Your task to perform on an android device: open sync settings in chrome Image 0: 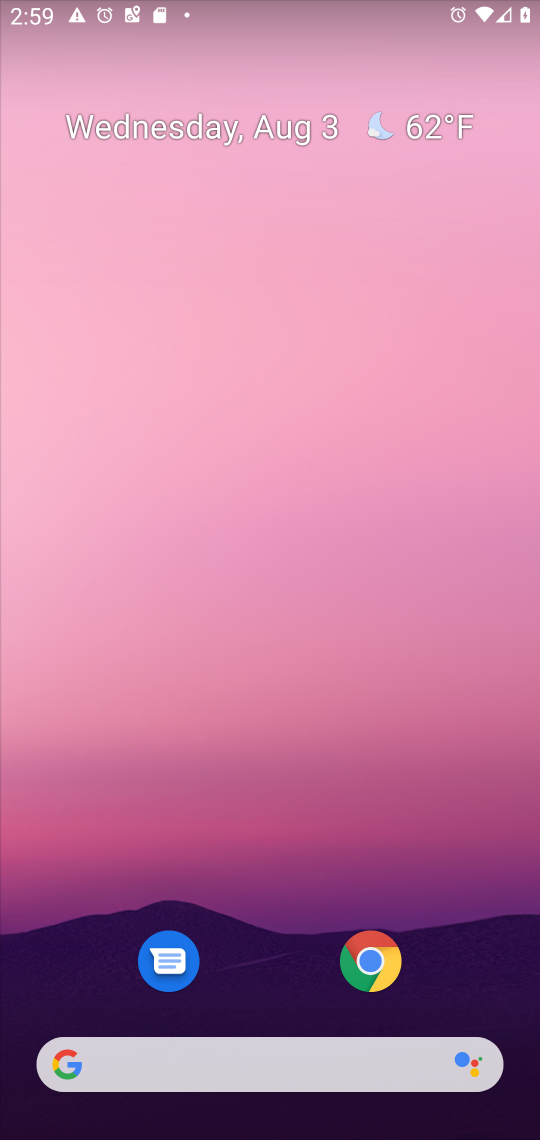
Step 0: click (370, 966)
Your task to perform on an android device: open sync settings in chrome Image 1: 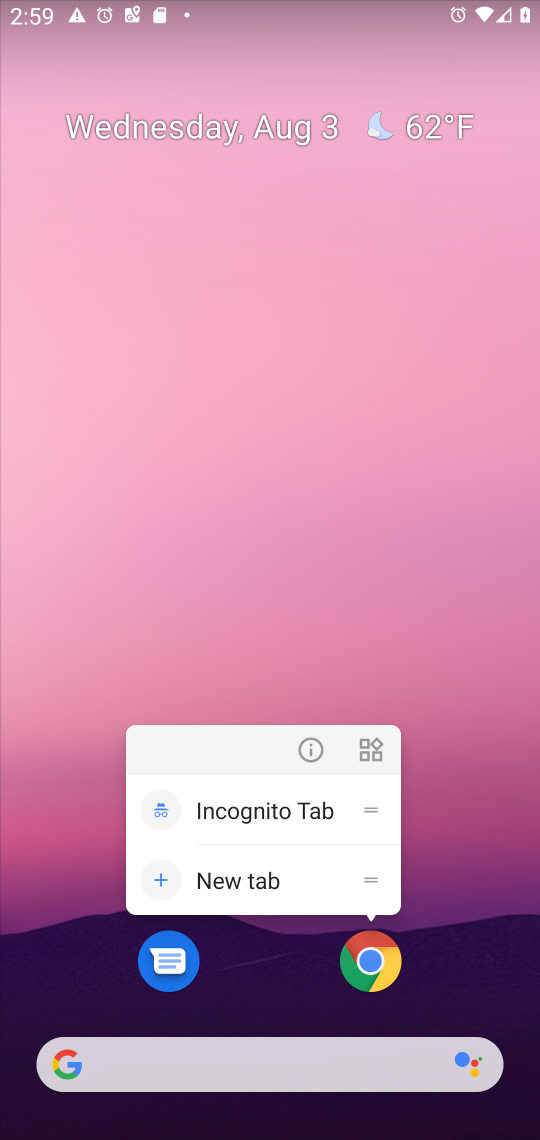
Step 1: click (370, 966)
Your task to perform on an android device: open sync settings in chrome Image 2: 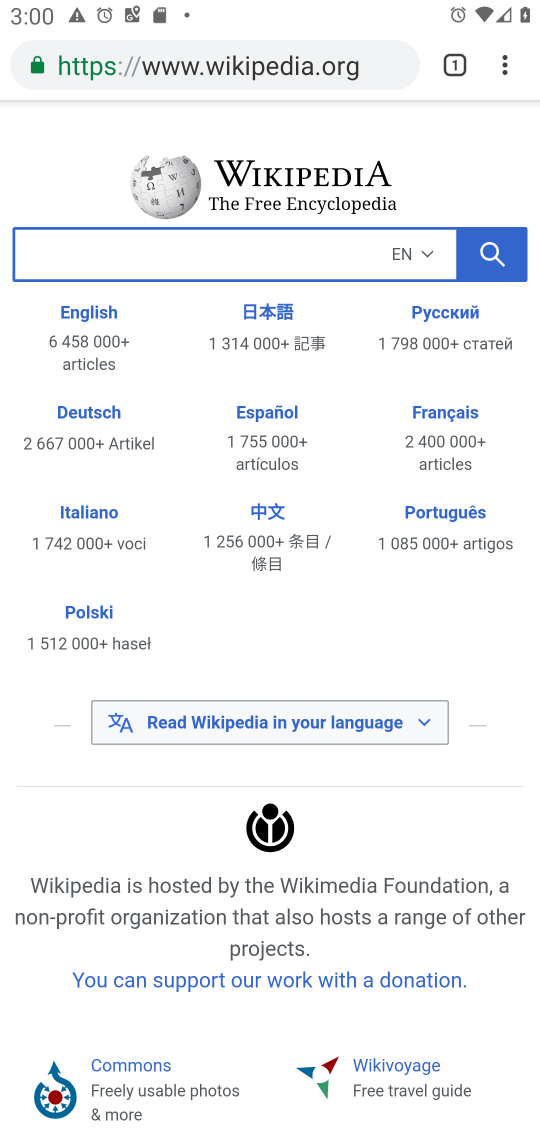
Step 2: click (501, 58)
Your task to perform on an android device: open sync settings in chrome Image 3: 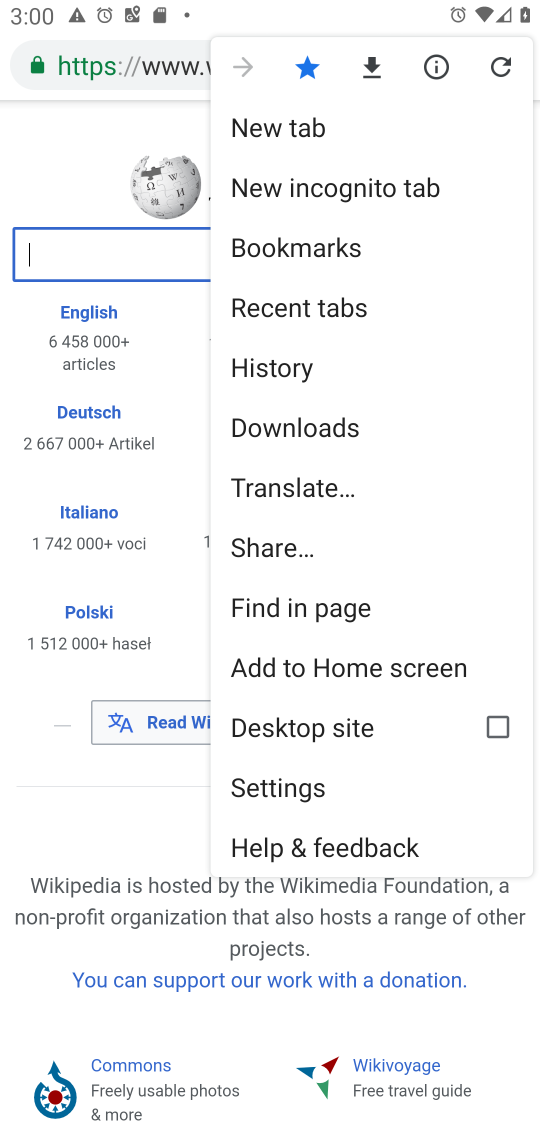
Step 3: click (286, 794)
Your task to perform on an android device: open sync settings in chrome Image 4: 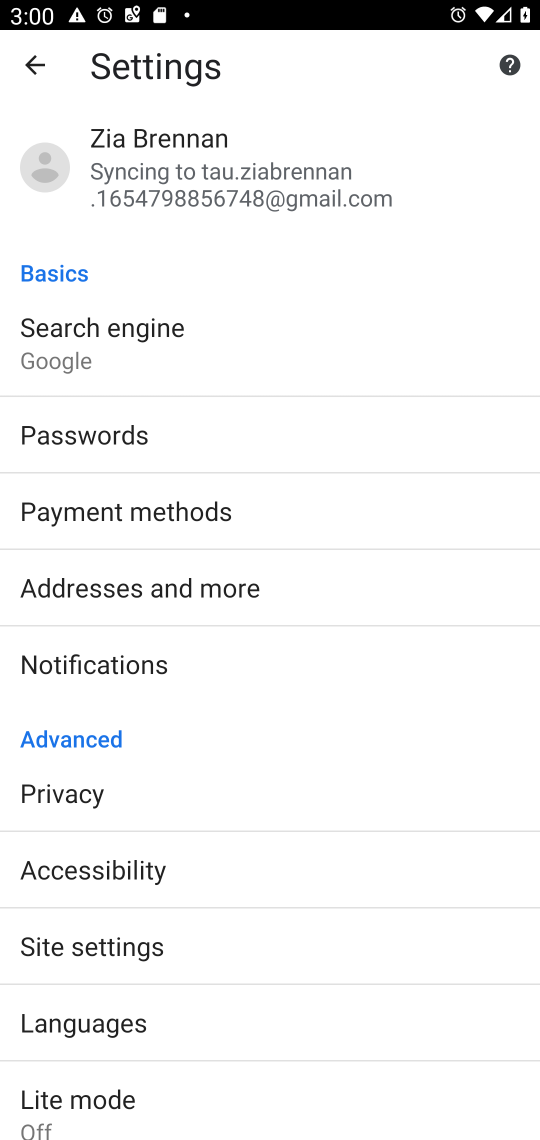
Step 4: click (185, 181)
Your task to perform on an android device: open sync settings in chrome Image 5: 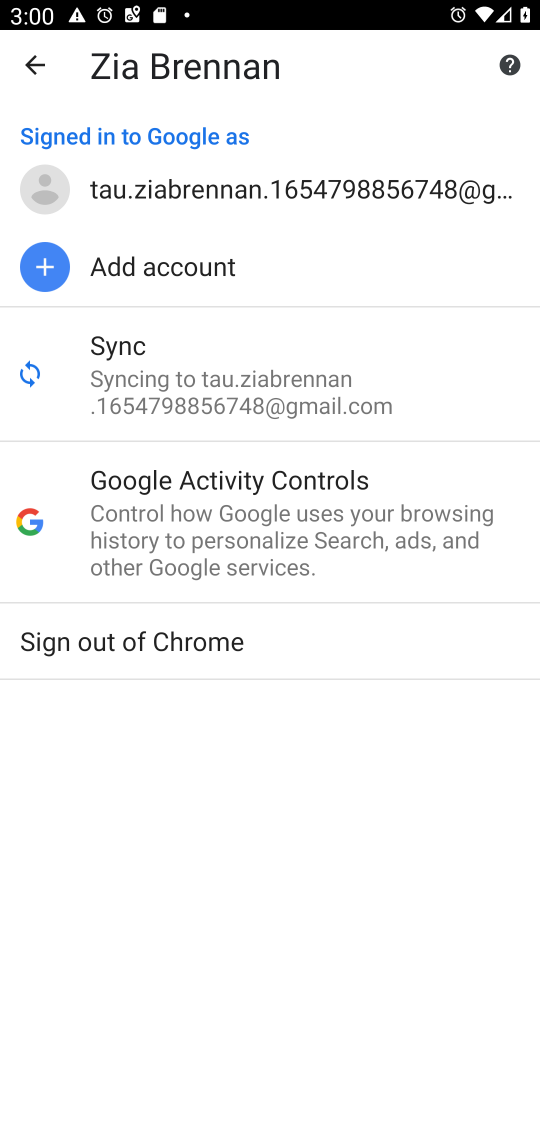
Step 5: click (163, 365)
Your task to perform on an android device: open sync settings in chrome Image 6: 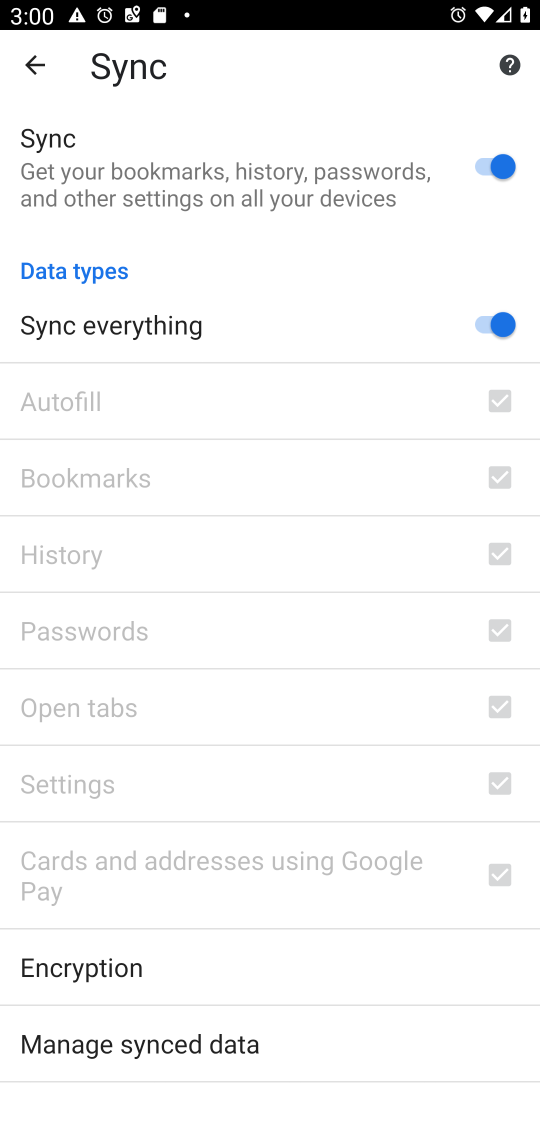
Step 6: task complete